Your task to perform on an android device: show emergency info Image 0: 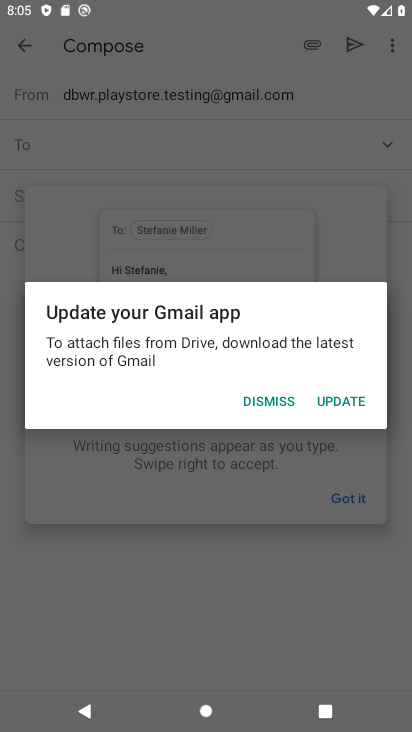
Step 0: press home button
Your task to perform on an android device: show emergency info Image 1: 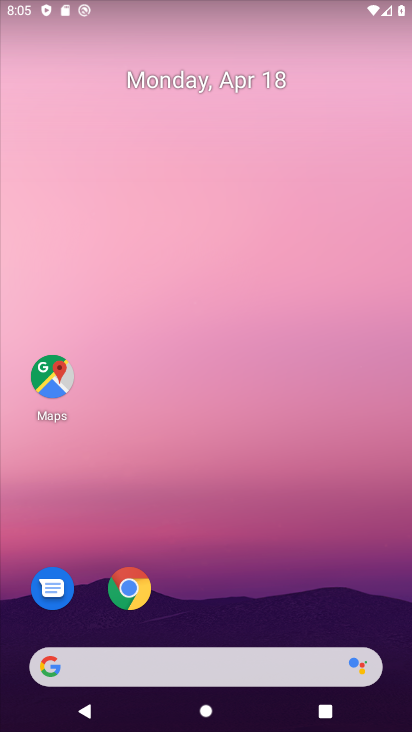
Step 1: drag from (257, 603) to (317, 13)
Your task to perform on an android device: show emergency info Image 2: 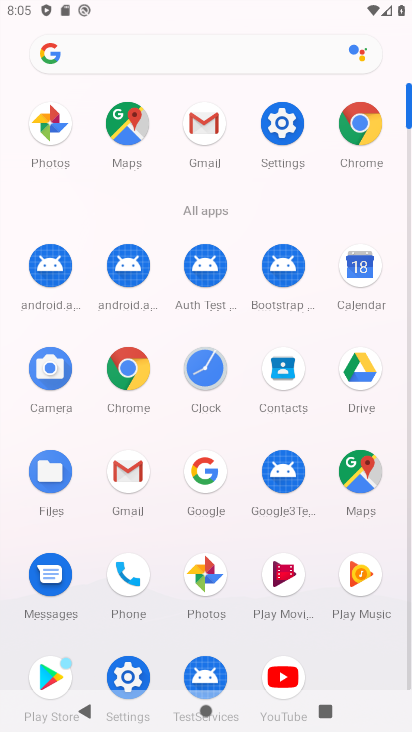
Step 2: click (282, 188)
Your task to perform on an android device: show emergency info Image 3: 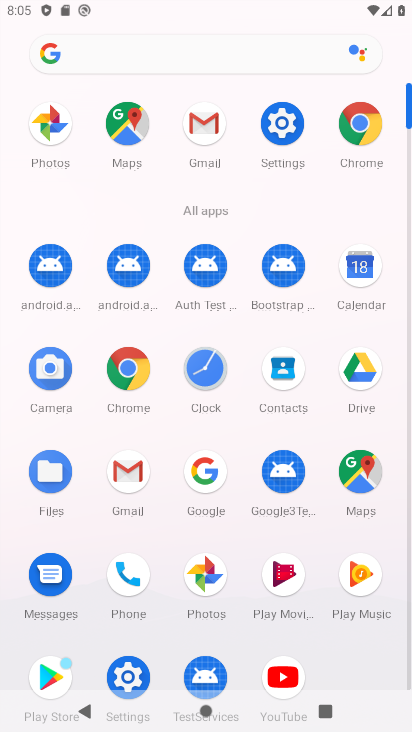
Step 3: click (288, 123)
Your task to perform on an android device: show emergency info Image 4: 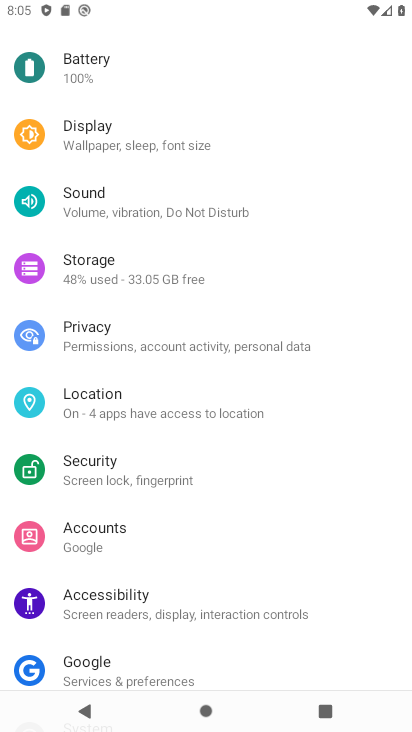
Step 4: drag from (213, 582) to (231, 42)
Your task to perform on an android device: show emergency info Image 5: 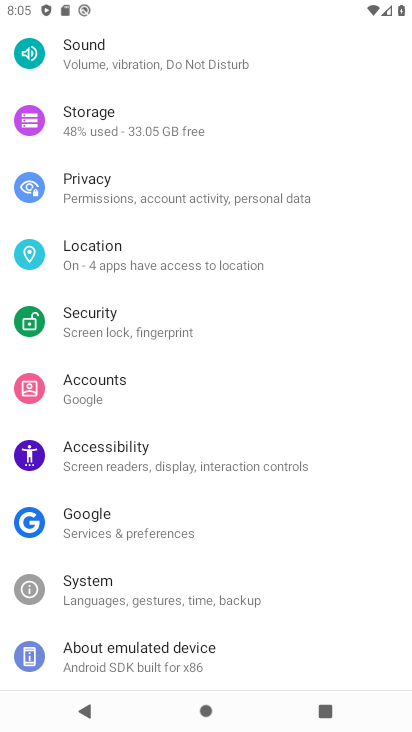
Step 5: click (151, 648)
Your task to perform on an android device: show emergency info Image 6: 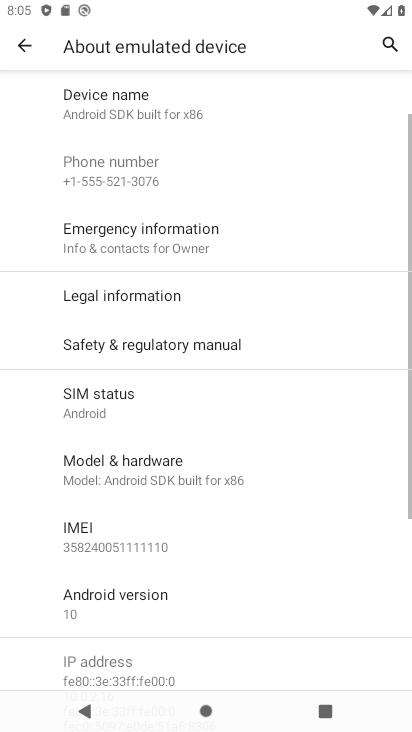
Step 6: click (144, 227)
Your task to perform on an android device: show emergency info Image 7: 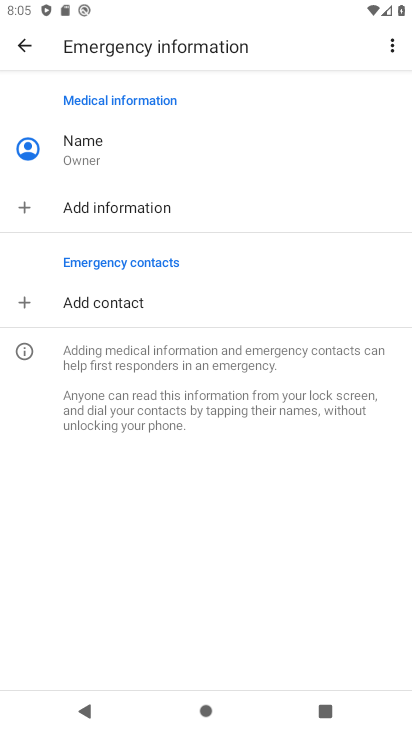
Step 7: task complete